Your task to perform on an android device: clear all cookies in the chrome app Image 0: 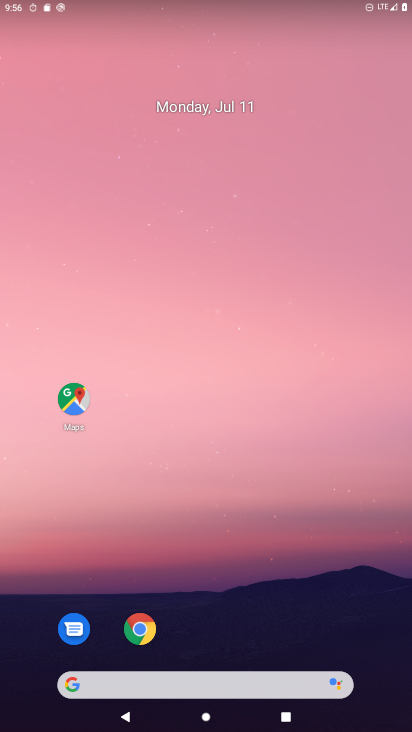
Step 0: click (142, 633)
Your task to perform on an android device: clear all cookies in the chrome app Image 1: 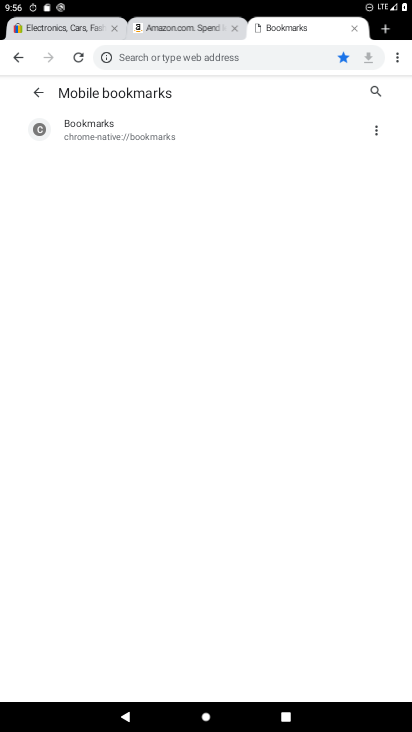
Step 1: click (394, 68)
Your task to perform on an android device: clear all cookies in the chrome app Image 2: 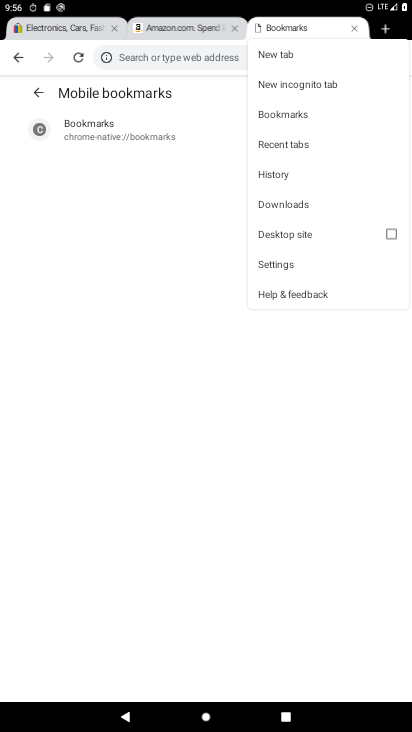
Step 2: click (269, 181)
Your task to perform on an android device: clear all cookies in the chrome app Image 3: 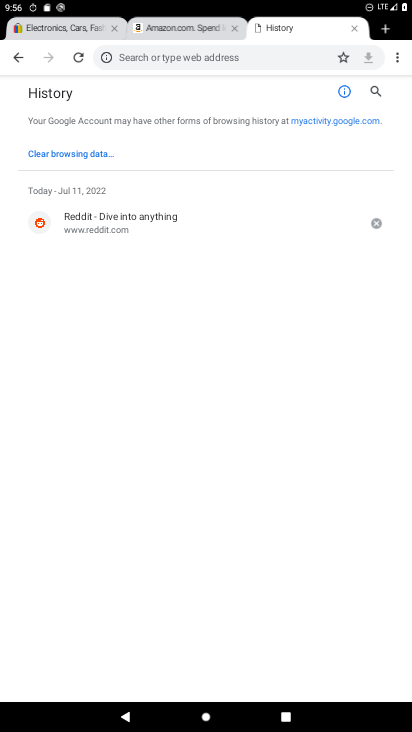
Step 3: click (89, 151)
Your task to perform on an android device: clear all cookies in the chrome app Image 4: 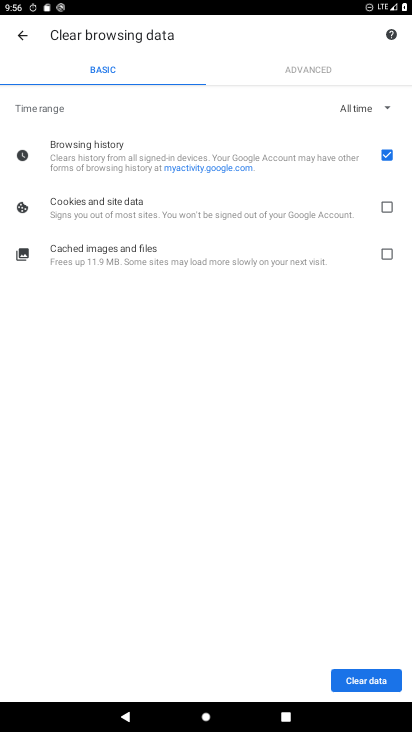
Step 4: click (392, 152)
Your task to perform on an android device: clear all cookies in the chrome app Image 5: 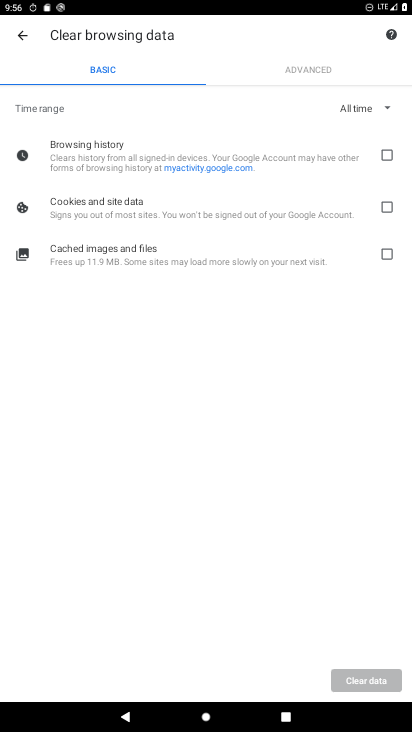
Step 5: click (387, 206)
Your task to perform on an android device: clear all cookies in the chrome app Image 6: 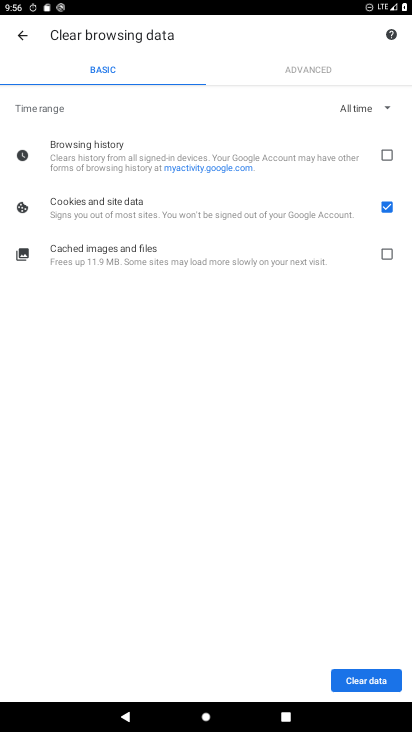
Step 6: click (364, 685)
Your task to perform on an android device: clear all cookies in the chrome app Image 7: 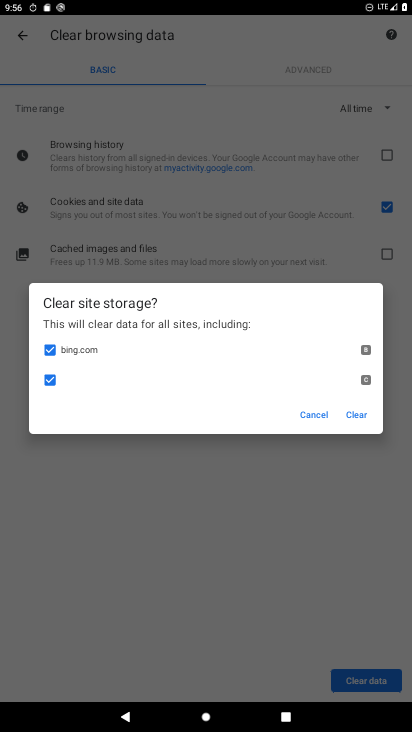
Step 7: click (360, 409)
Your task to perform on an android device: clear all cookies in the chrome app Image 8: 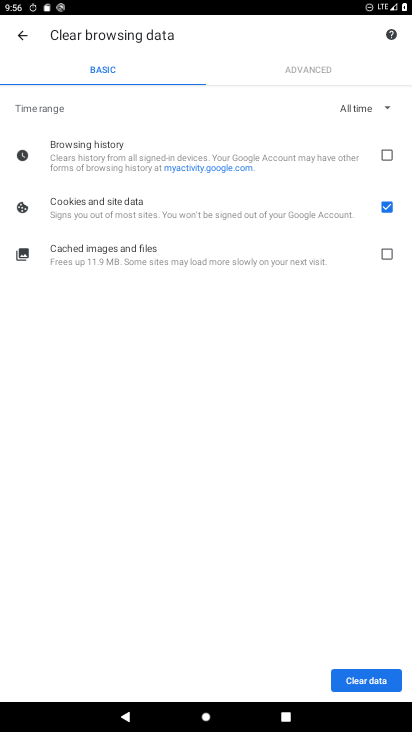
Step 8: task complete